Your task to perform on an android device: turn on showing notifications on the lock screen Image 0: 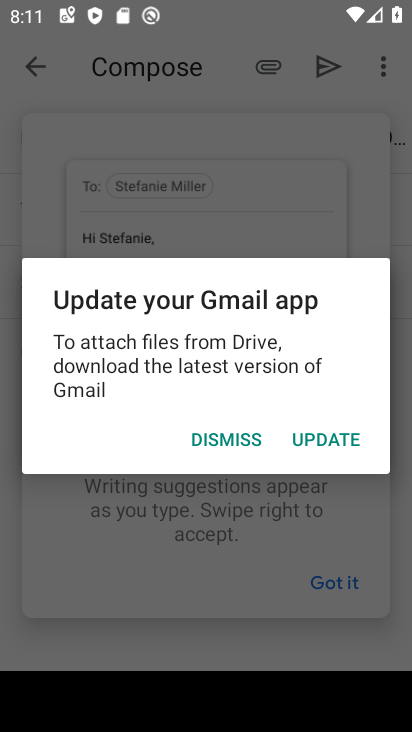
Step 0: press home button
Your task to perform on an android device: turn on showing notifications on the lock screen Image 1: 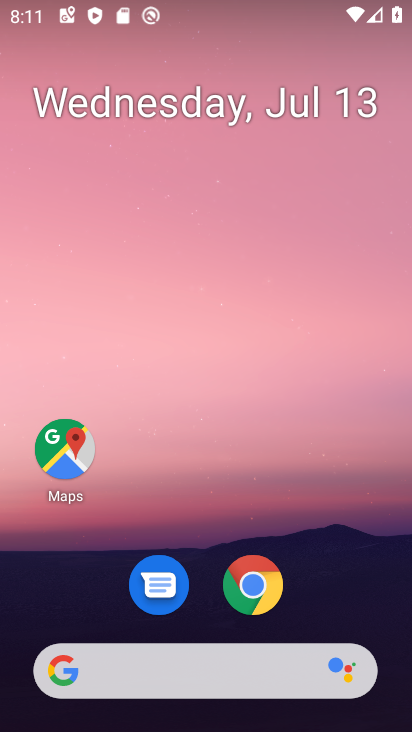
Step 1: drag from (294, 521) to (293, 7)
Your task to perform on an android device: turn on showing notifications on the lock screen Image 2: 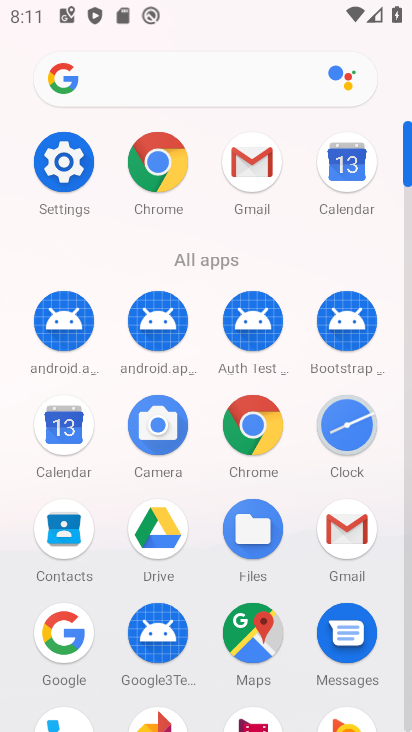
Step 2: click (63, 180)
Your task to perform on an android device: turn on showing notifications on the lock screen Image 3: 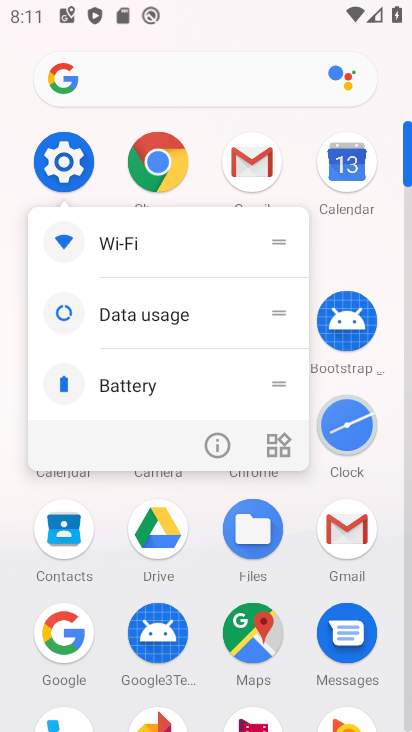
Step 3: click (68, 166)
Your task to perform on an android device: turn on showing notifications on the lock screen Image 4: 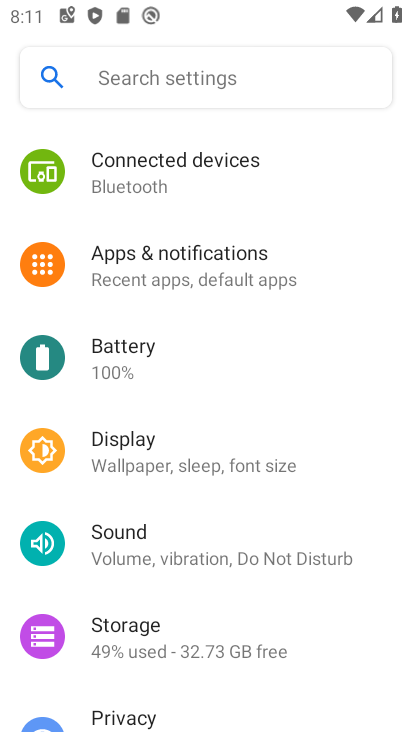
Step 4: click (197, 260)
Your task to perform on an android device: turn on showing notifications on the lock screen Image 5: 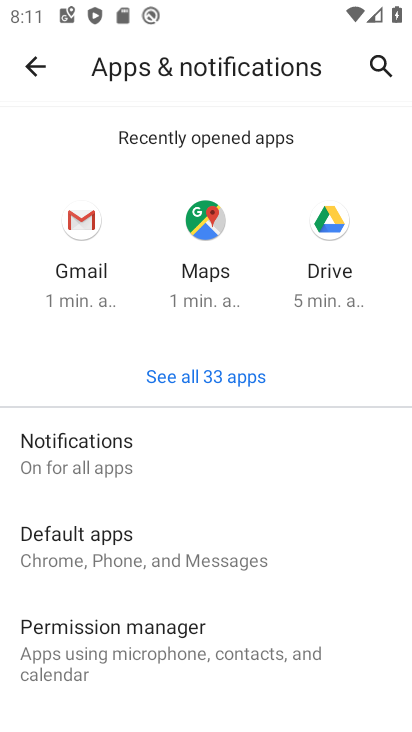
Step 5: drag from (216, 526) to (296, 200)
Your task to perform on an android device: turn on showing notifications on the lock screen Image 6: 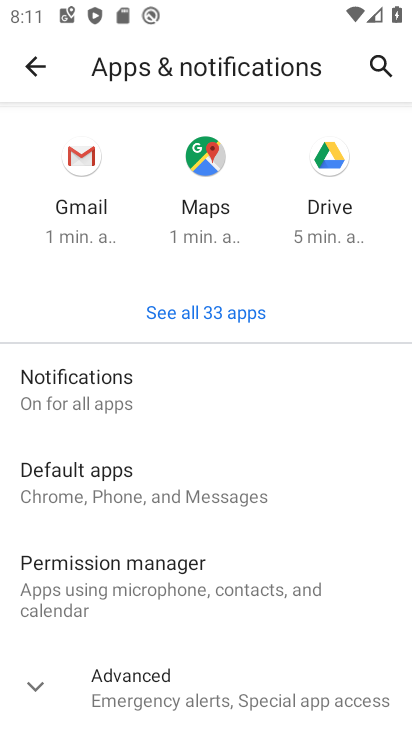
Step 6: click (118, 383)
Your task to perform on an android device: turn on showing notifications on the lock screen Image 7: 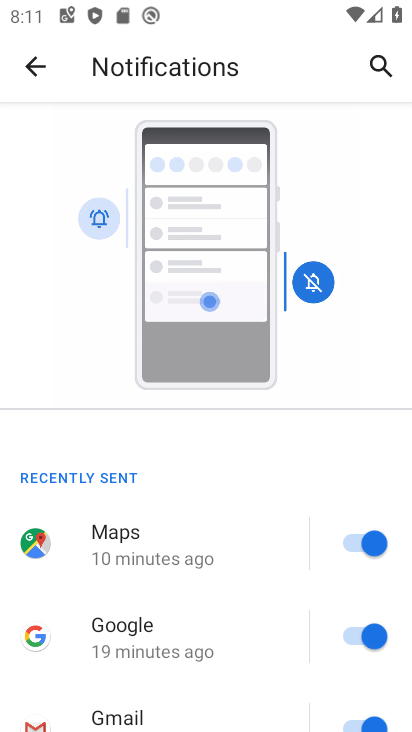
Step 7: drag from (244, 599) to (242, 151)
Your task to perform on an android device: turn on showing notifications on the lock screen Image 8: 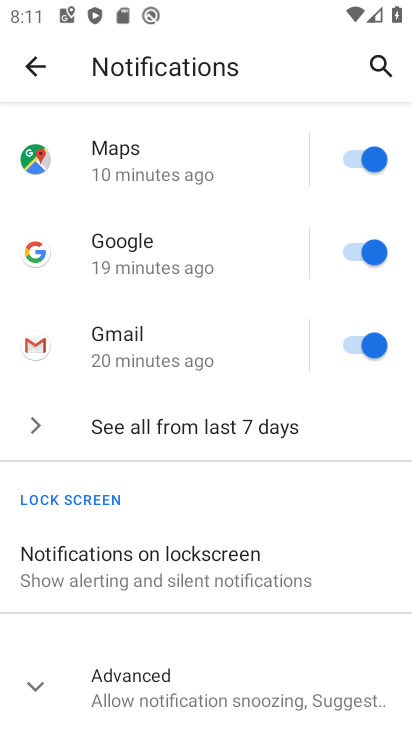
Step 8: click (227, 573)
Your task to perform on an android device: turn on showing notifications on the lock screen Image 9: 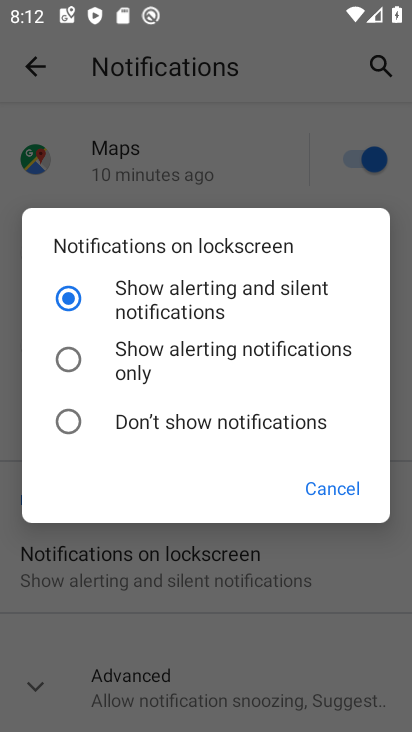
Step 9: click (332, 482)
Your task to perform on an android device: turn on showing notifications on the lock screen Image 10: 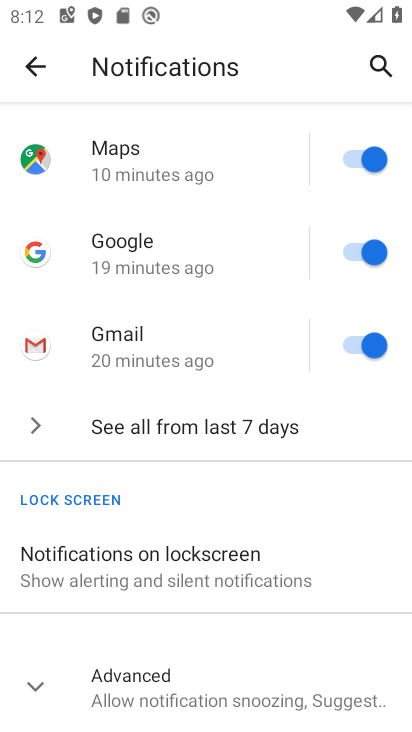
Step 10: task complete